Your task to perform on an android device: Go to display settings Image 0: 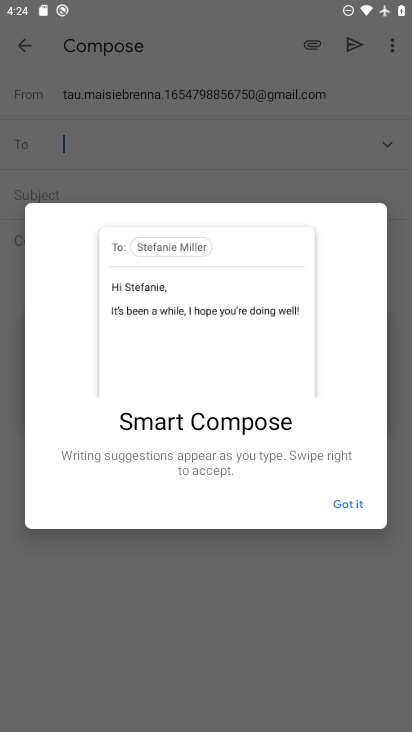
Step 0: press home button
Your task to perform on an android device: Go to display settings Image 1: 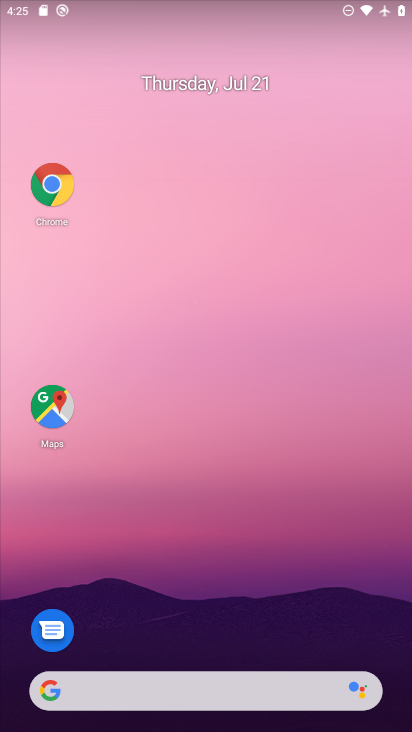
Step 1: drag from (240, 669) to (266, 7)
Your task to perform on an android device: Go to display settings Image 2: 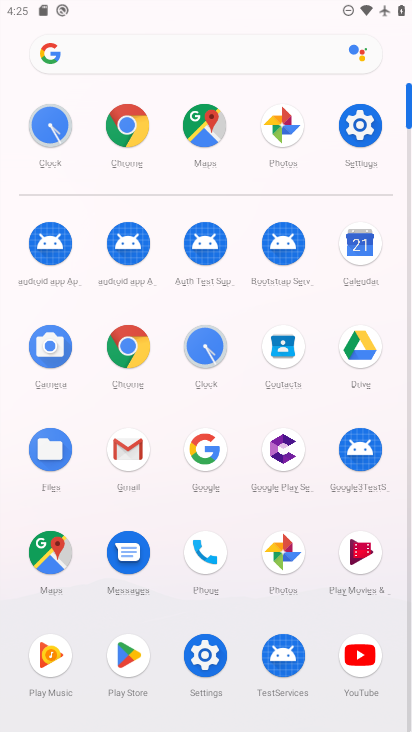
Step 2: click (356, 120)
Your task to perform on an android device: Go to display settings Image 3: 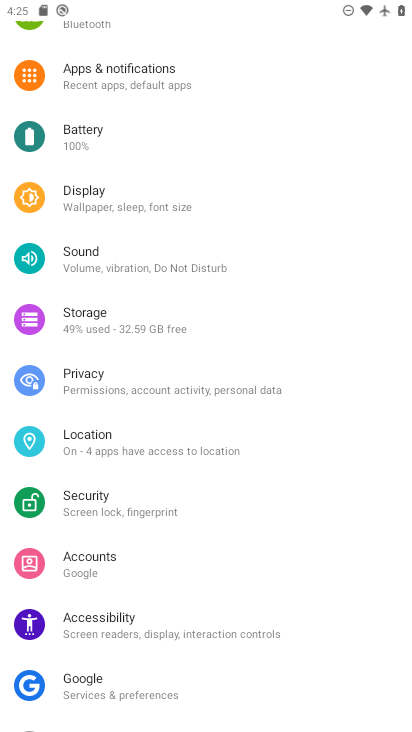
Step 3: click (108, 205)
Your task to perform on an android device: Go to display settings Image 4: 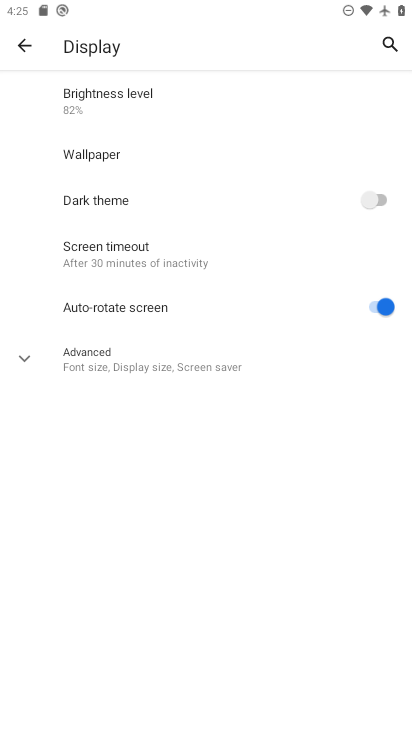
Step 4: click (119, 354)
Your task to perform on an android device: Go to display settings Image 5: 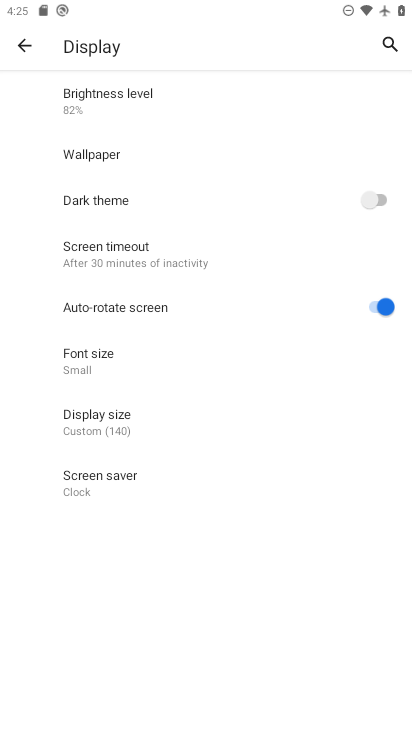
Step 5: task complete